Your task to perform on an android device: turn off translation in the chrome app Image 0: 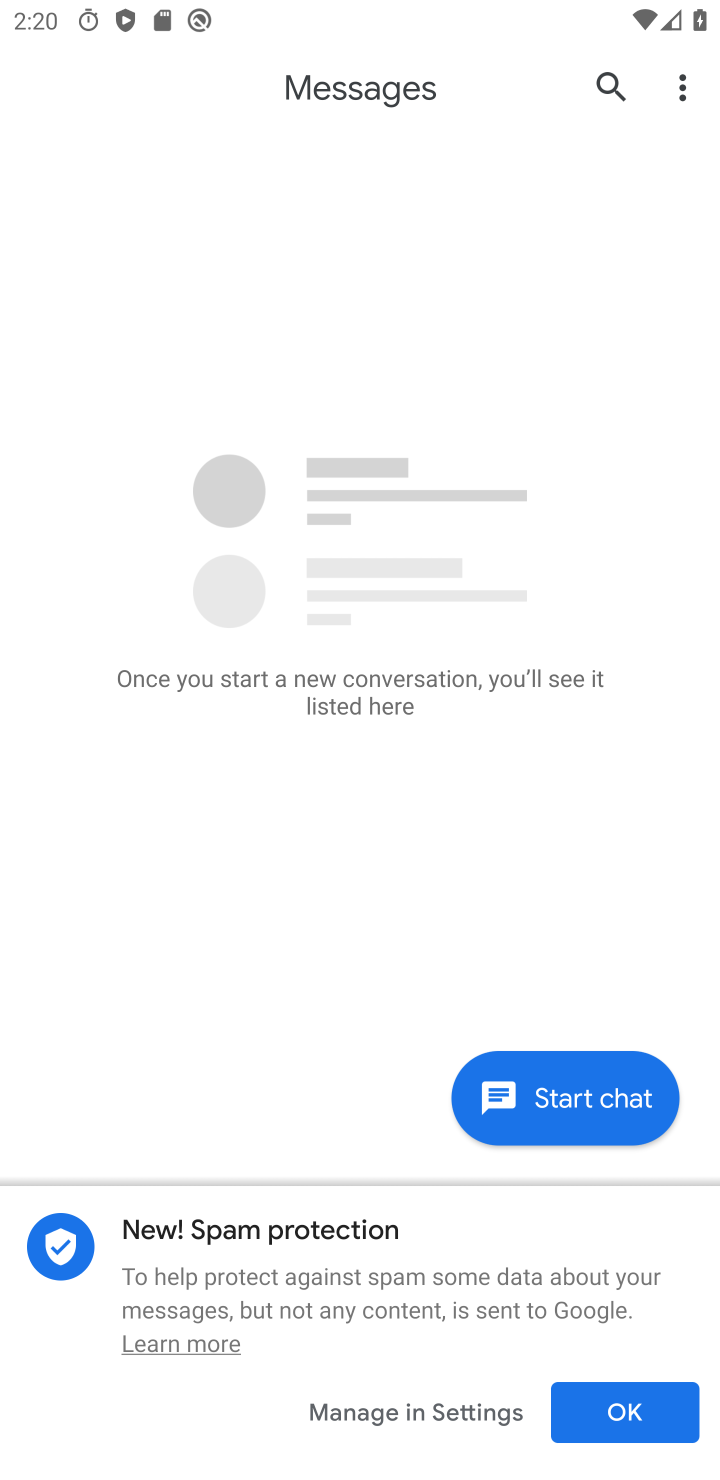
Step 0: click (476, 527)
Your task to perform on an android device: turn off translation in the chrome app Image 1: 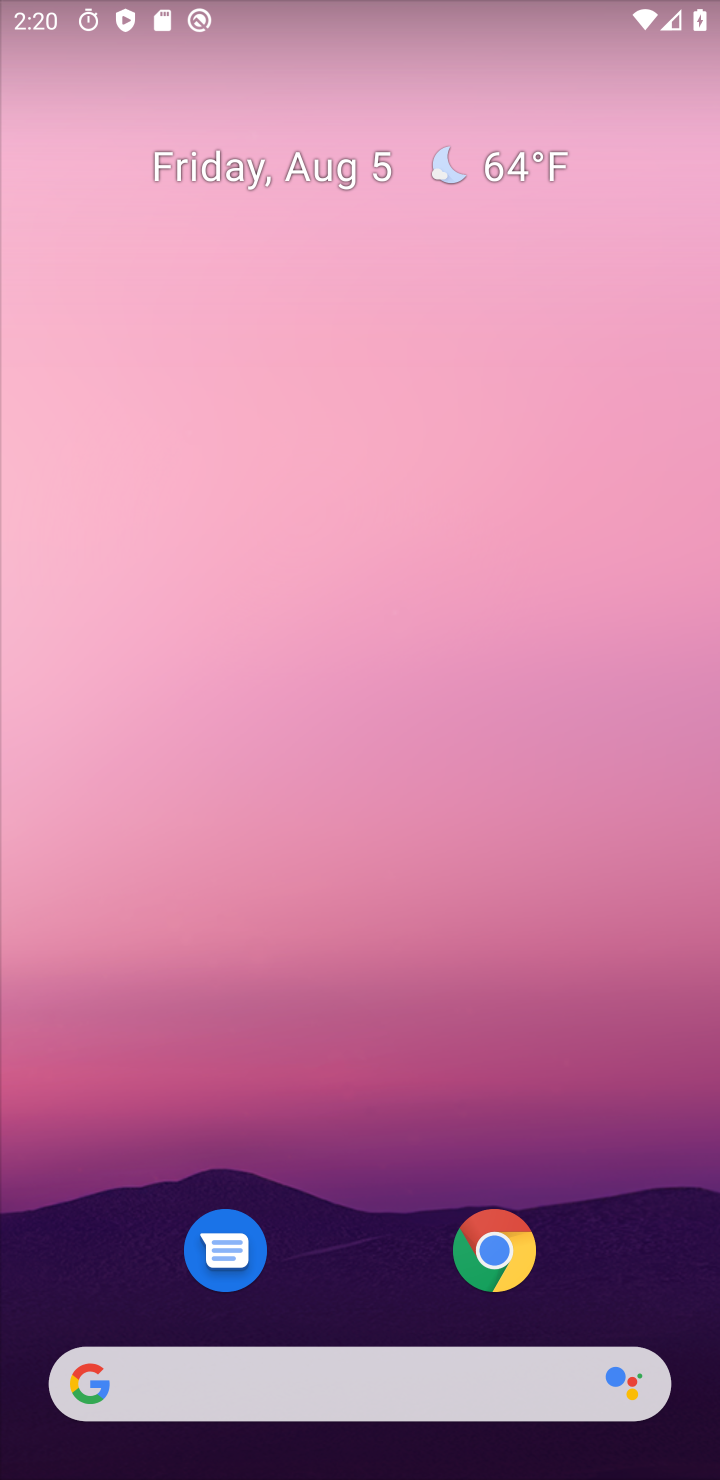
Step 1: press home button
Your task to perform on an android device: turn off translation in the chrome app Image 2: 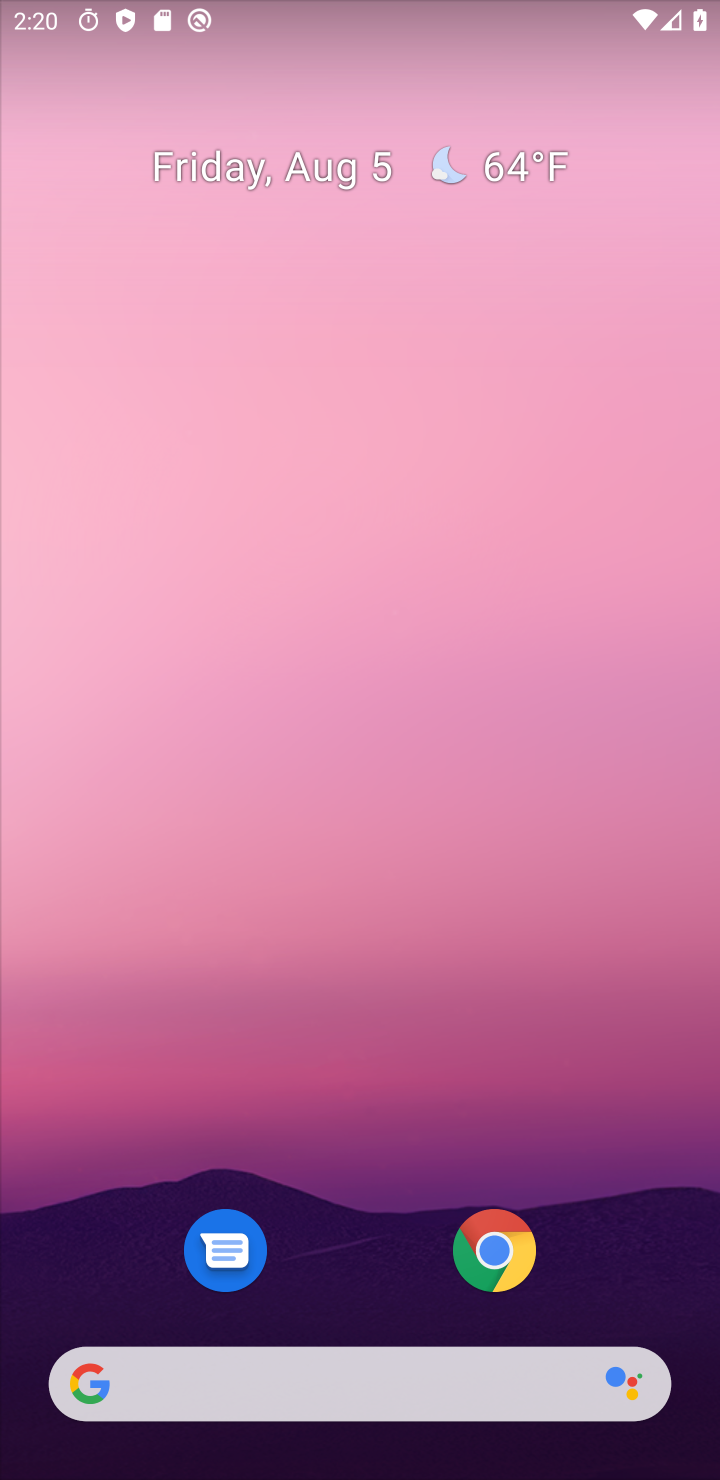
Step 2: drag from (421, 1275) to (275, 541)
Your task to perform on an android device: turn off translation in the chrome app Image 3: 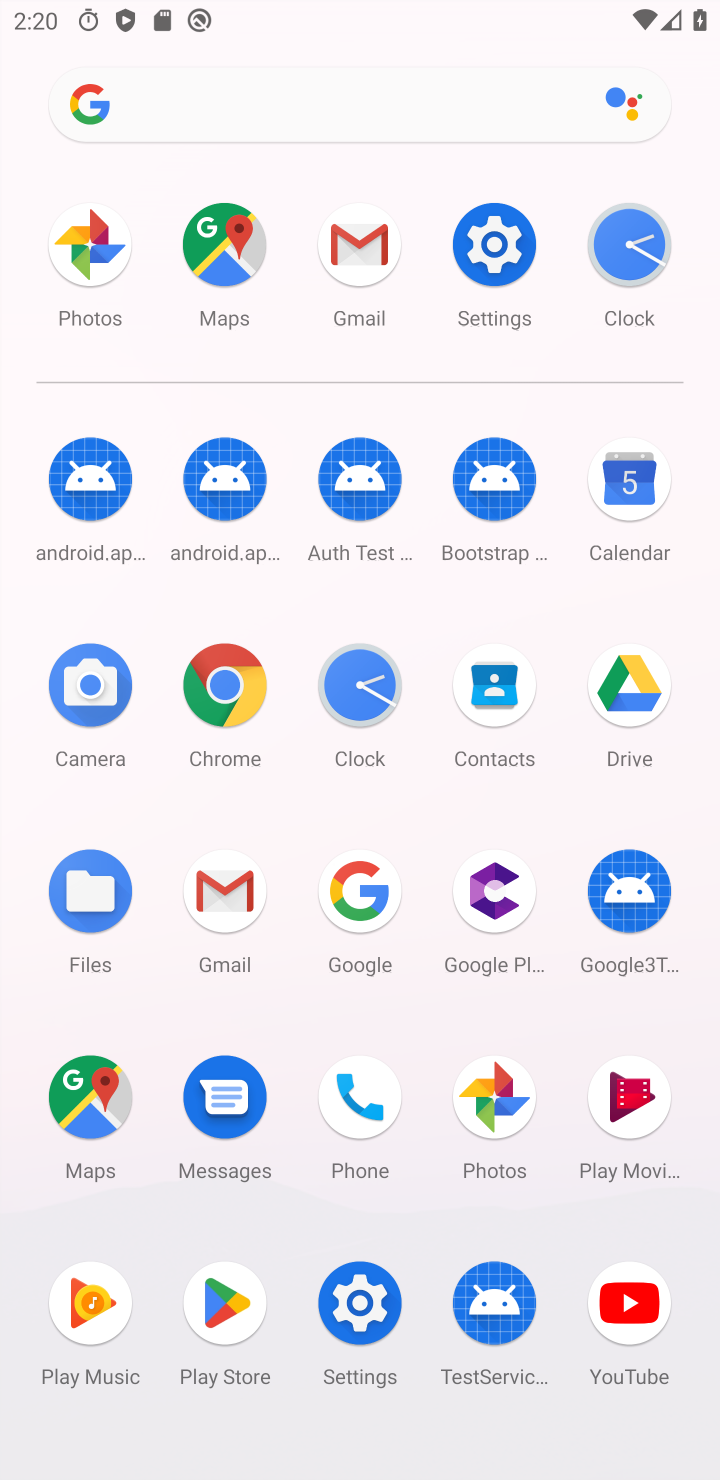
Step 3: click (232, 688)
Your task to perform on an android device: turn off translation in the chrome app Image 4: 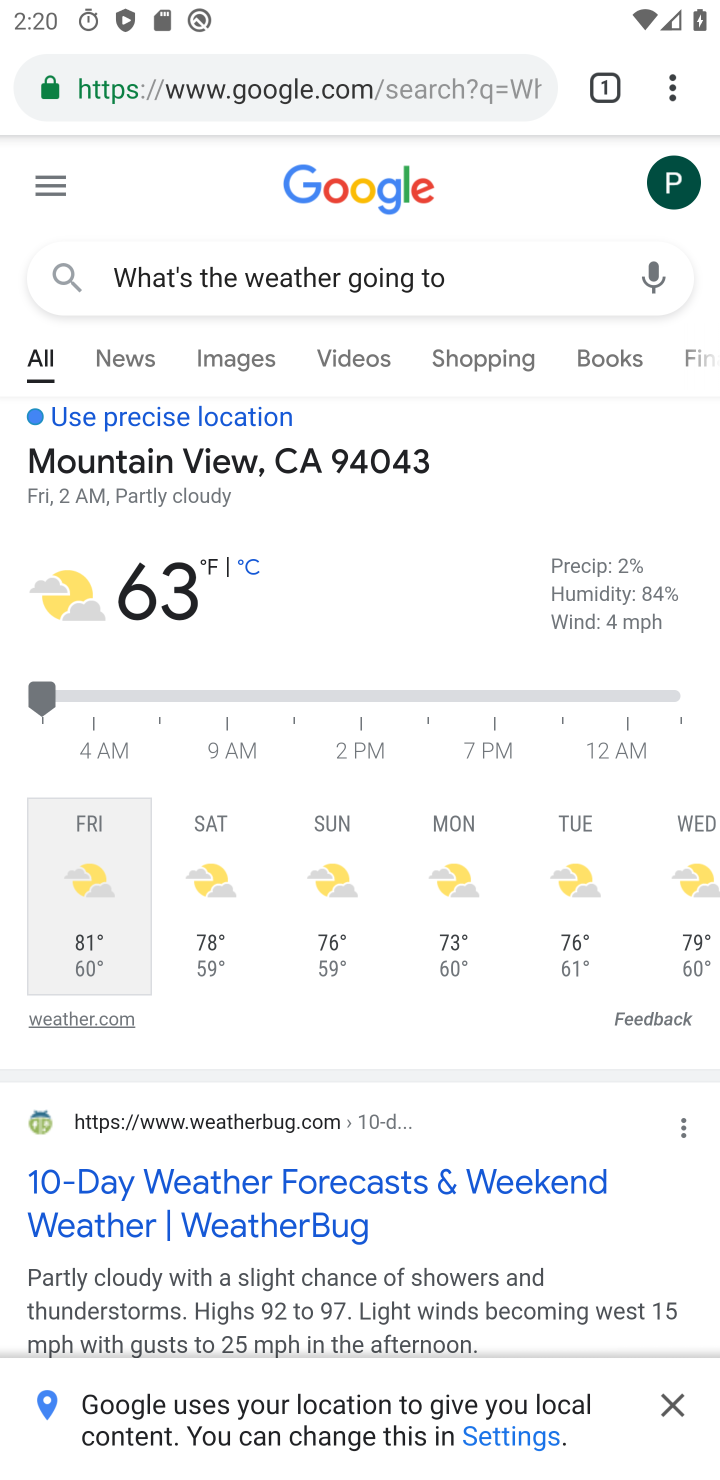
Step 4: drag from (671, 74) to (390, 1087)
Your task to perform on an android device: turn off translation in the chrome app Image 5: 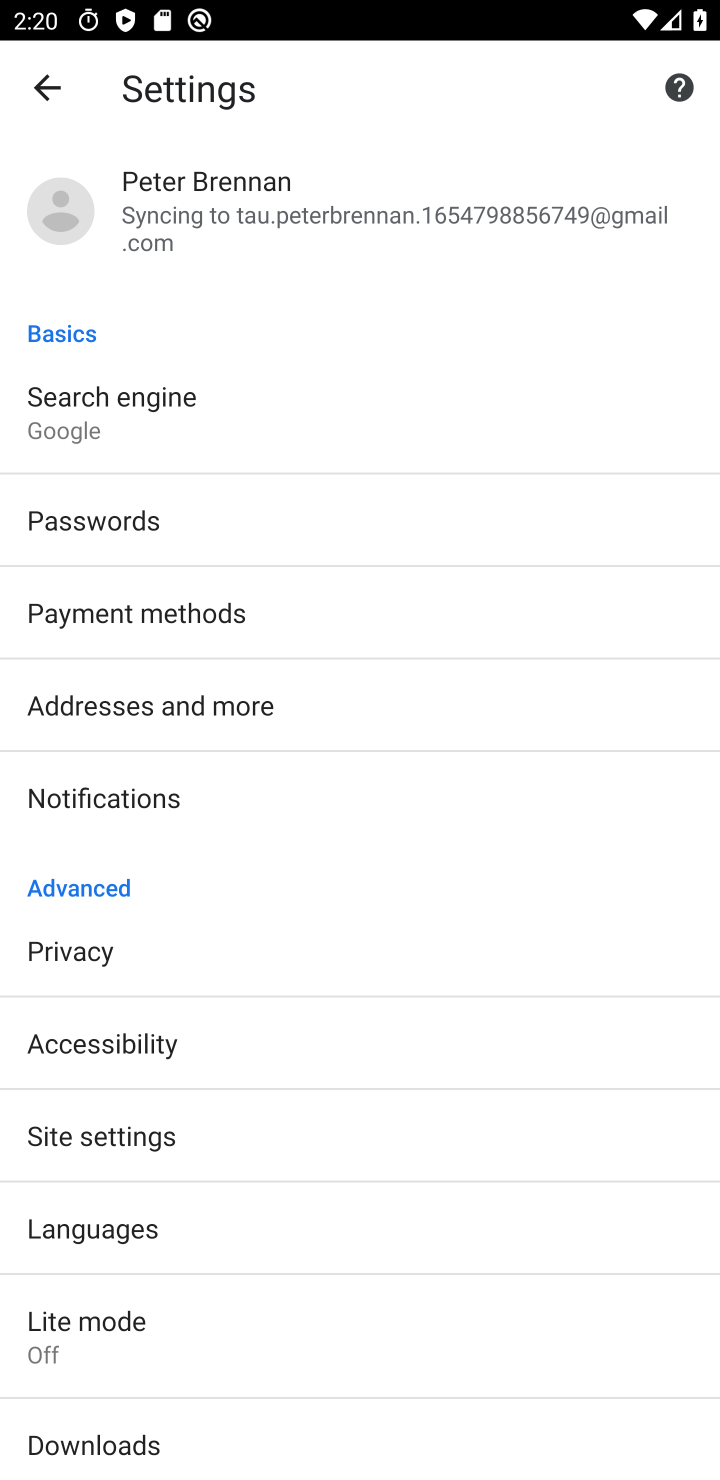
Step 5: click (119, 1252)
Your task to perform on an android device: turn off translation in the chrome app Image 6: 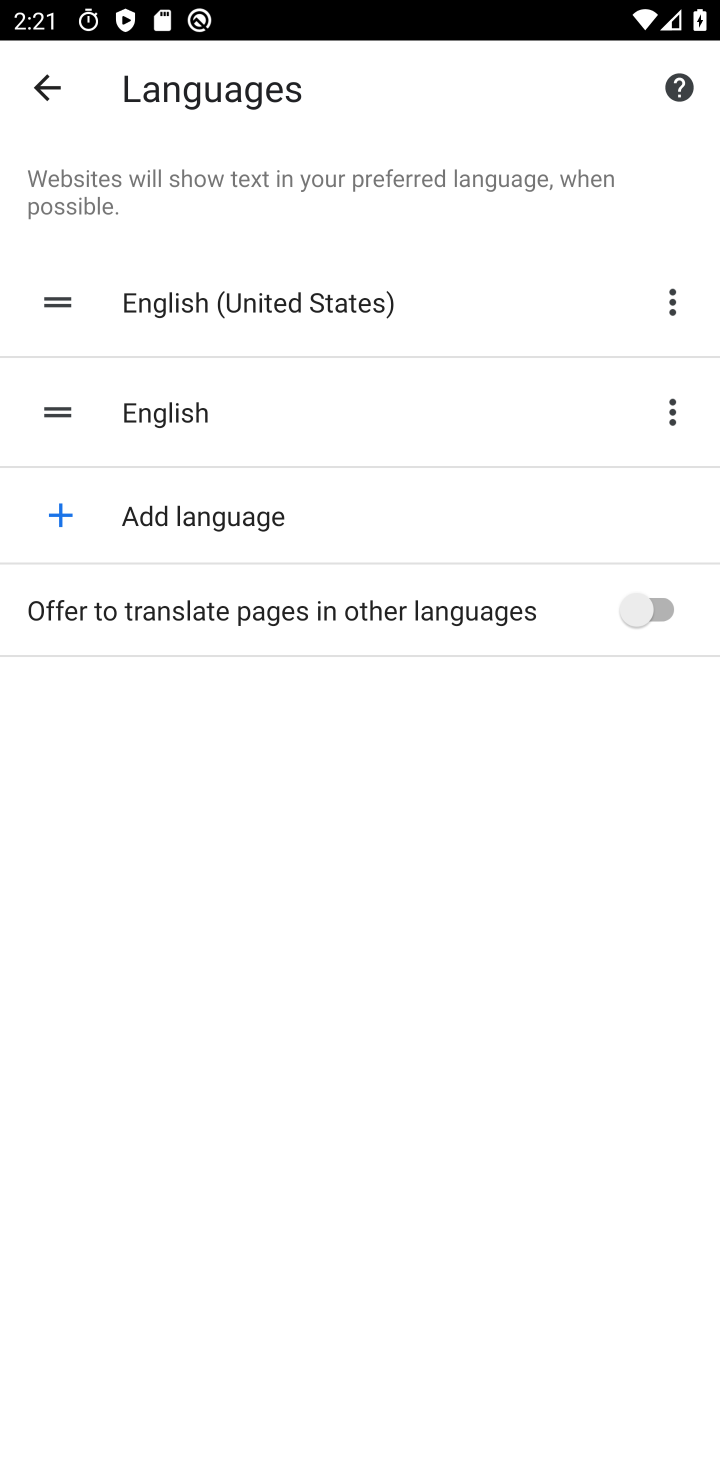
Step 6: task complete